Your task to perform on an android device: turn off notifications settings in the gmail app Image 0: 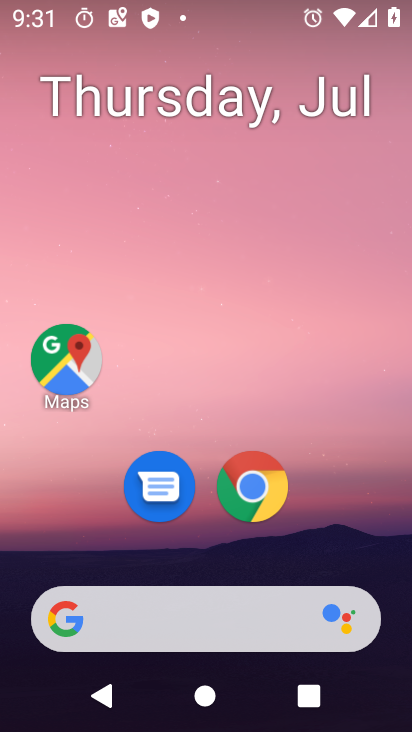
Step 0: drag from (233, 599) to (198, 262)
Your task to perform on an android device: turn off notifications settings in the gmail app Image 1: 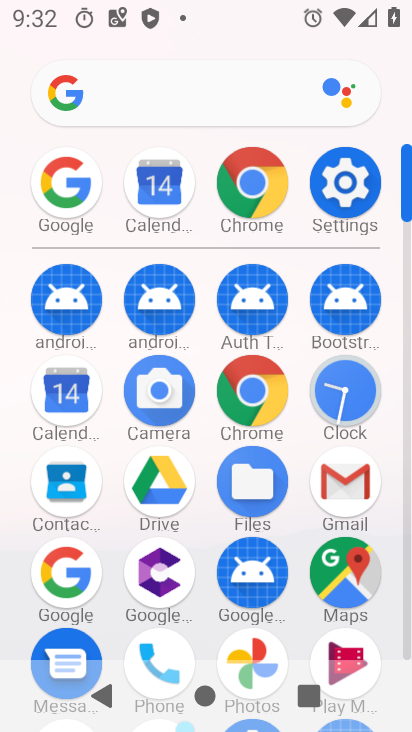
Step 1: click (349, 490)
Your task to perform on an android device: turn off notifications settings in the gmail app Image 2: 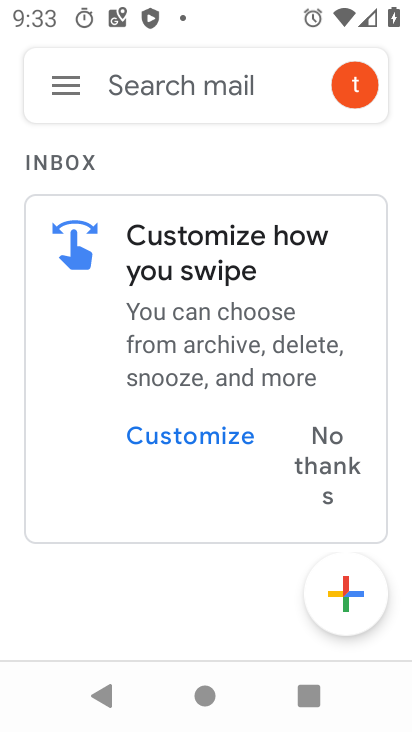
Step 2: click (59, 96)
Your task to perform on an android device: turn off notifications settings in the gmail app Image 3: 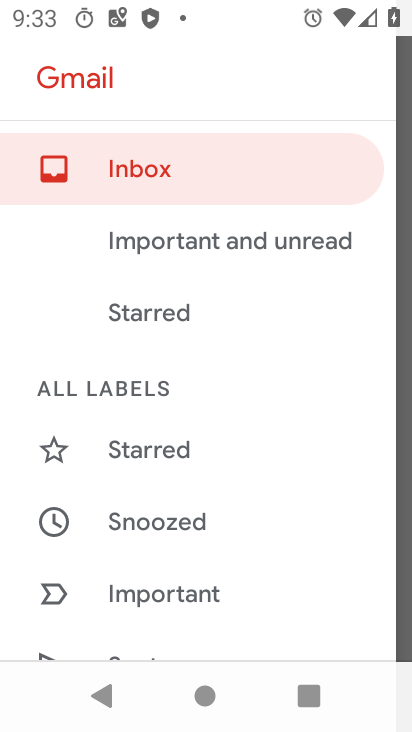
Step 3: drag from (108, 531) to (144, 212)
Your task to perform on an android device: turn off notifications settings in the gmail app Image 4: 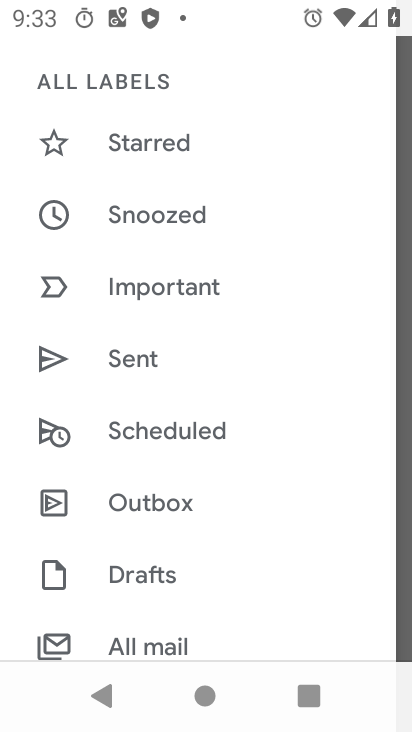
Step 4: drag from (148, 550) to (148, 296)
Your task to perform on an android device: turn off notifications settings in the gmail app Image 5: 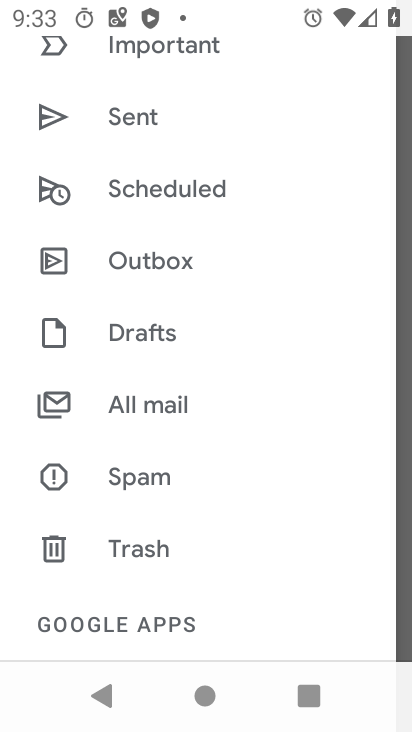
Step 5: drag from (144, 556) to (146, 273)
Your task to perform on an android device: turn off notifications settings in the gmail app Image 6: 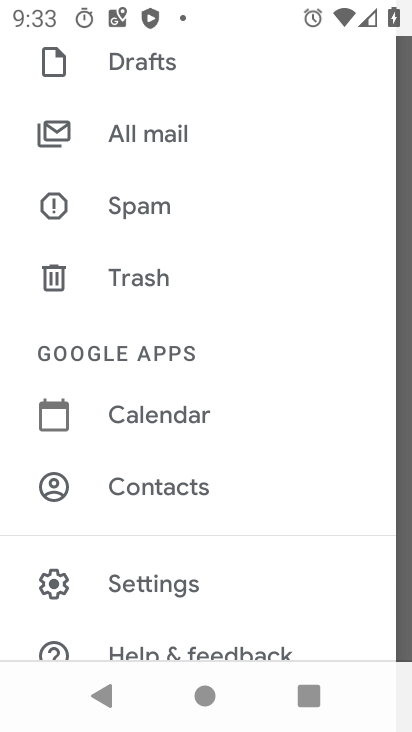
Step 6: click (165, 598)
Your task to perform on an android device: turn off notifications settings in the gmail app Image 7: 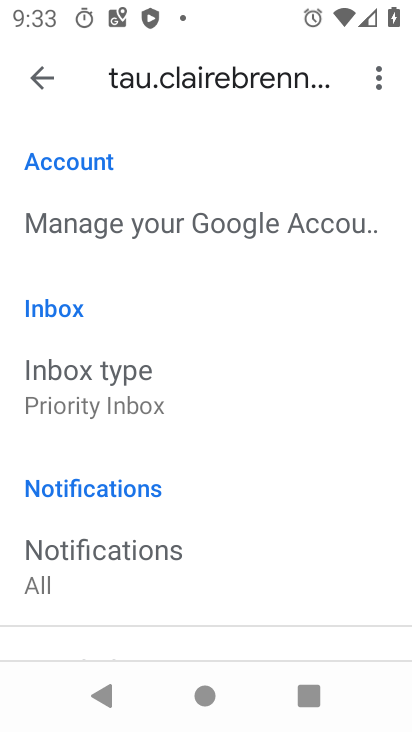
Step 7: drag from (234, 561) to (239, 130)
Your task to perform on an android device: turn off notifications settings in the gmail app Image 8: 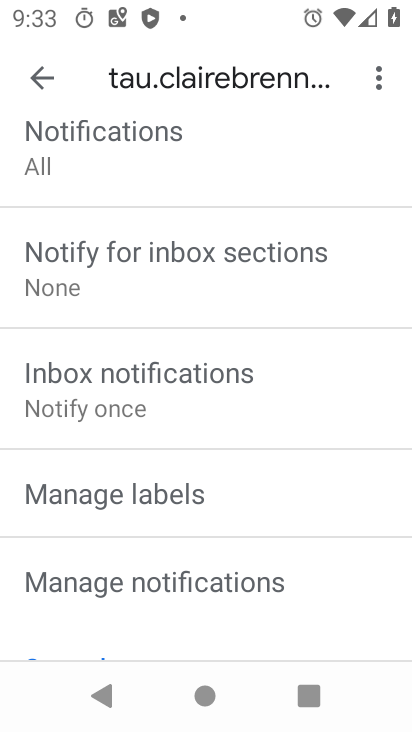
Step 8: click (41, 81)
Your task to perform on an android device: turn off notifications settings in the gmail app Image 9: 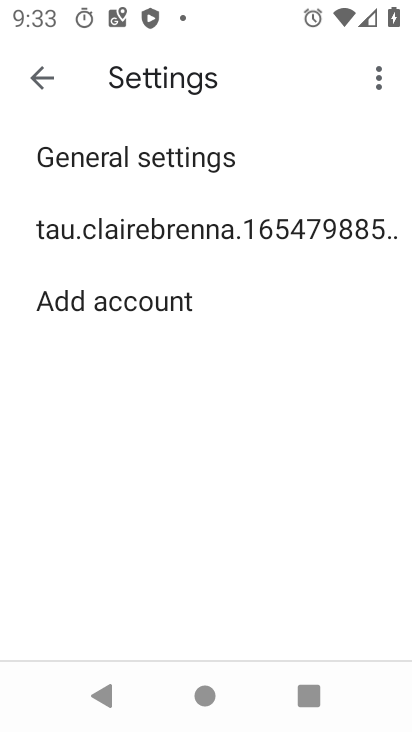
Step 9: click (78, 160)
Your task to perform on an android device: turn off notifications settings in the gmail app Image 10: 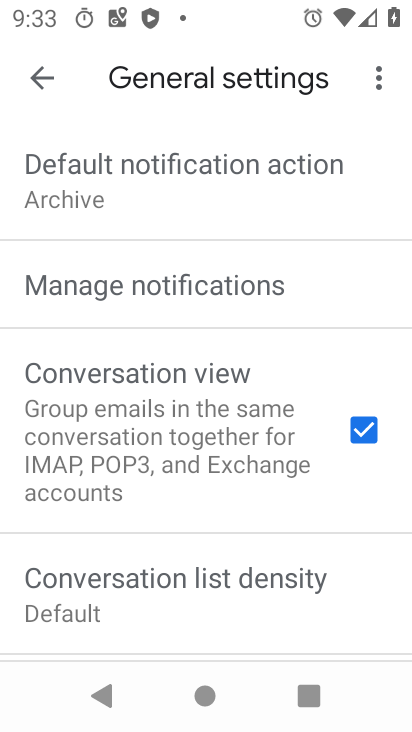
Step 10: click (105, 298)
Your task to perform on an android device: turn off notifications settings in the gmail app Image 11: 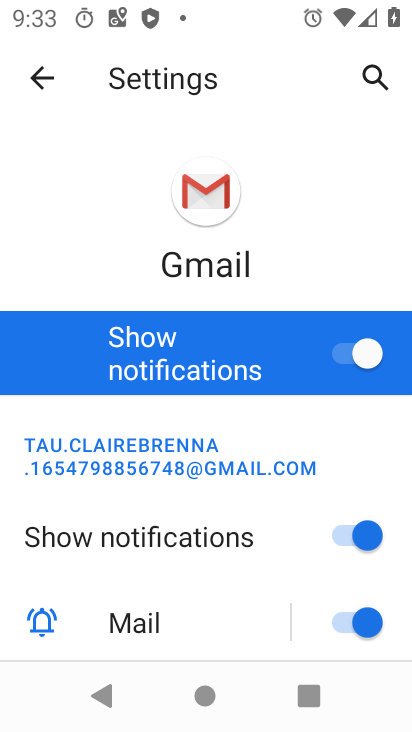
Step 11: click (268, 358)
Your task to perform on an android device: turn off notifications settings in the gmail app Image 12: 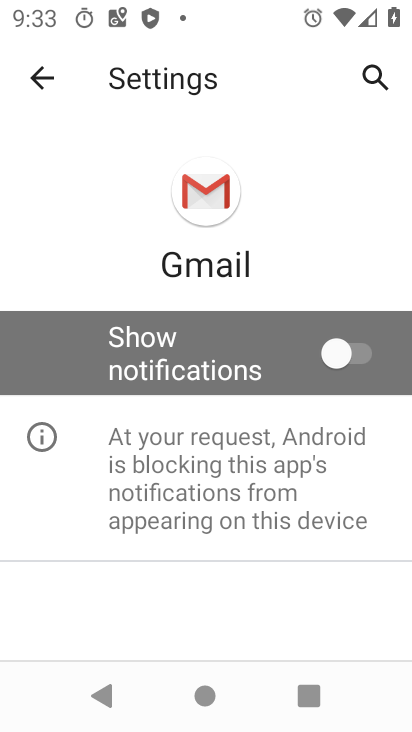
Step 12: task complete